Your task to perform on an android device: Open Youtube and go to "Your channel" Image 0: 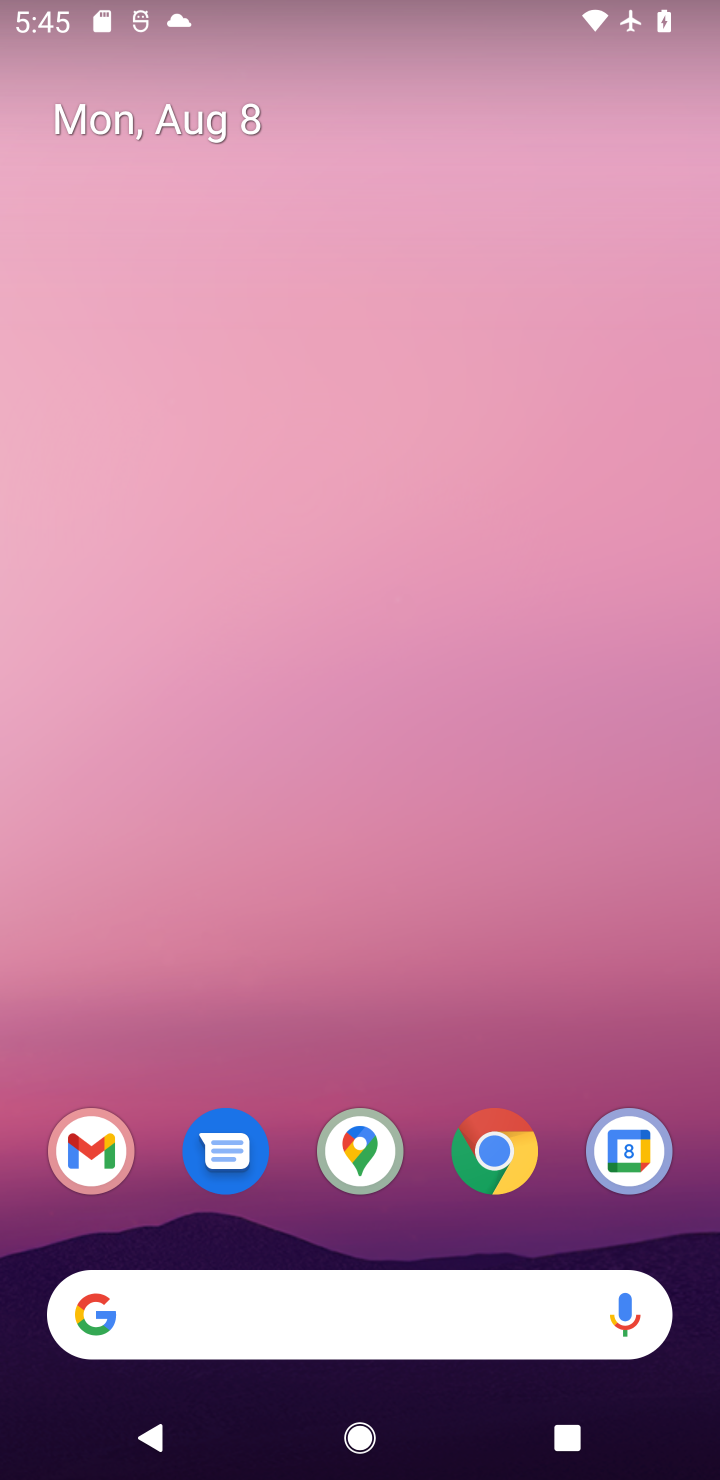
Step 0: drag from (373, 999) to (373, 159)
Your task to perform on an android device: Open Youtube and go to "Your channel" Image 1: 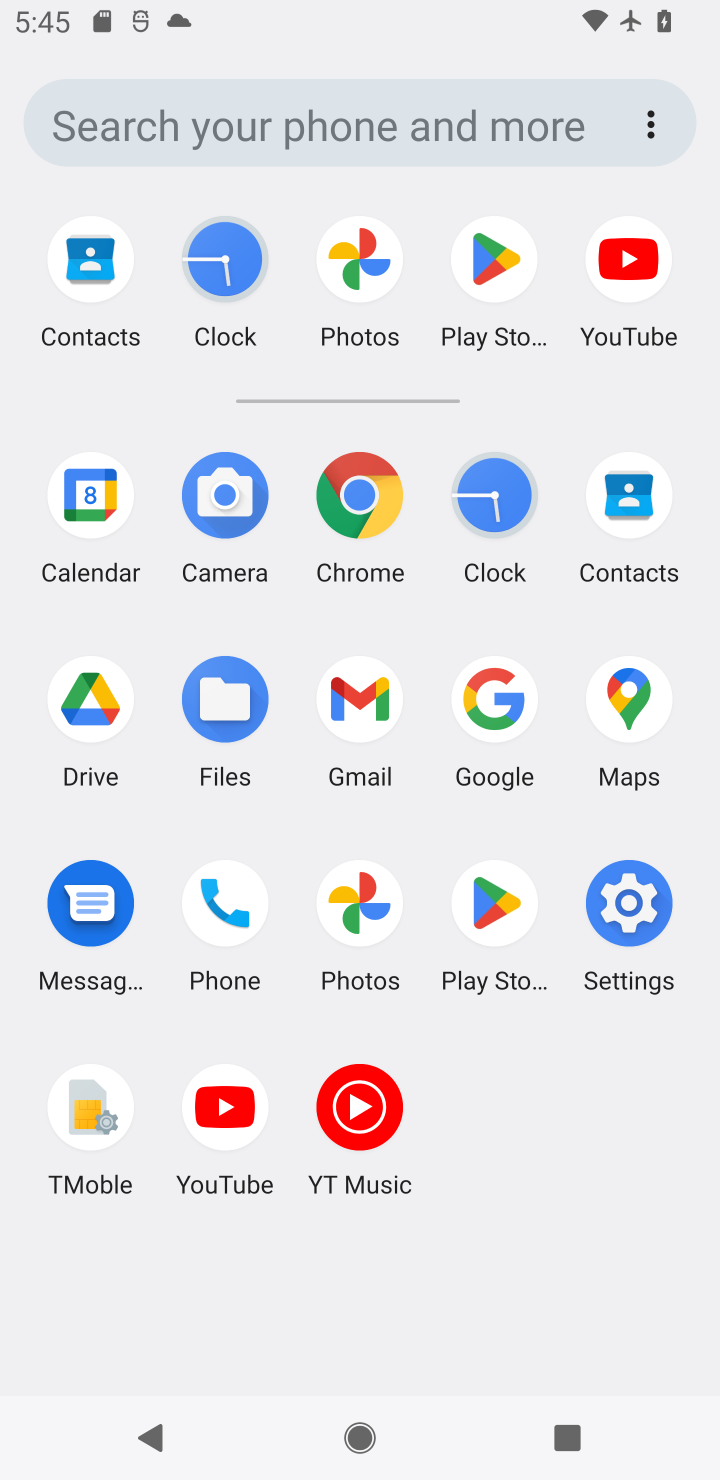
Step 1: click (215, 1145)
Your task to perform on an android device: Open Youtube and go to "Your channel" Image 2: 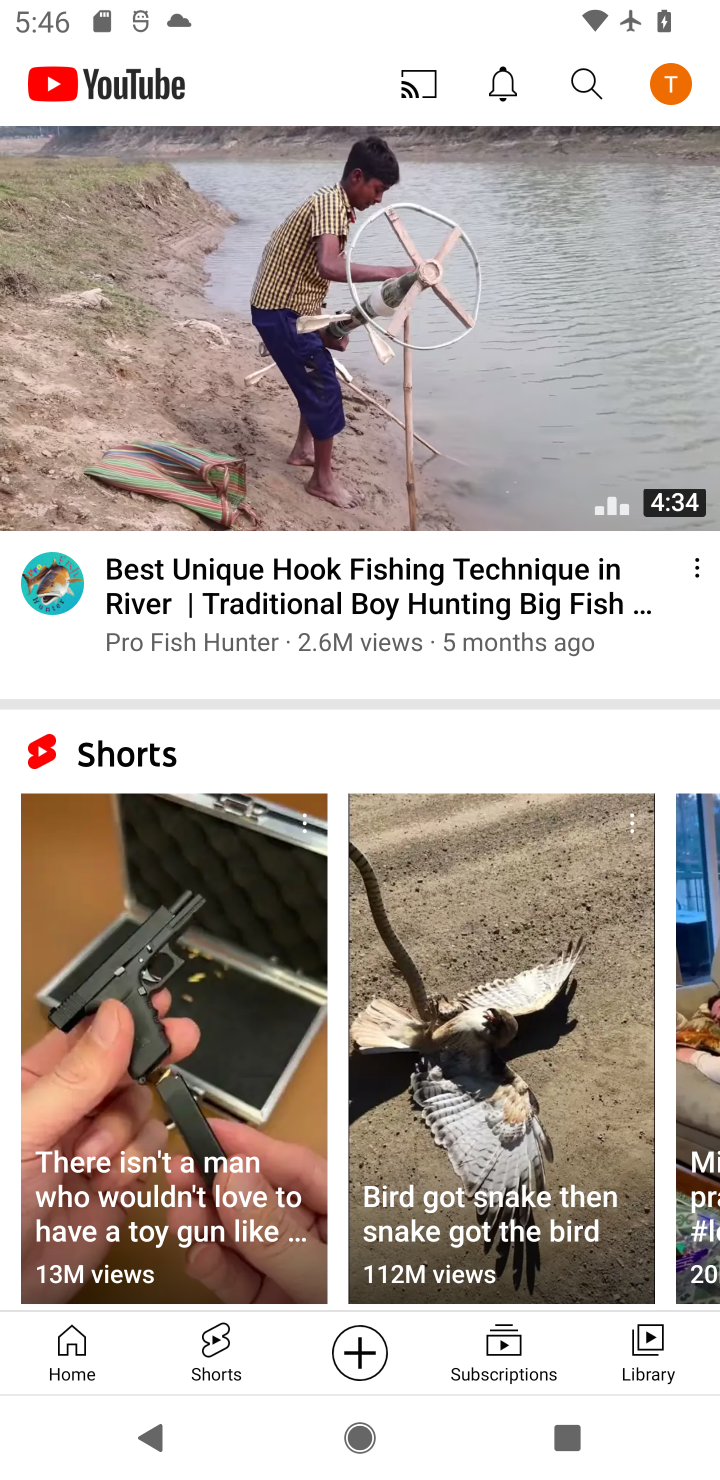
Step 2: click (679, 67)
Your task to perform on an android device: Open Youtube and go to "Your channel" Image 3: 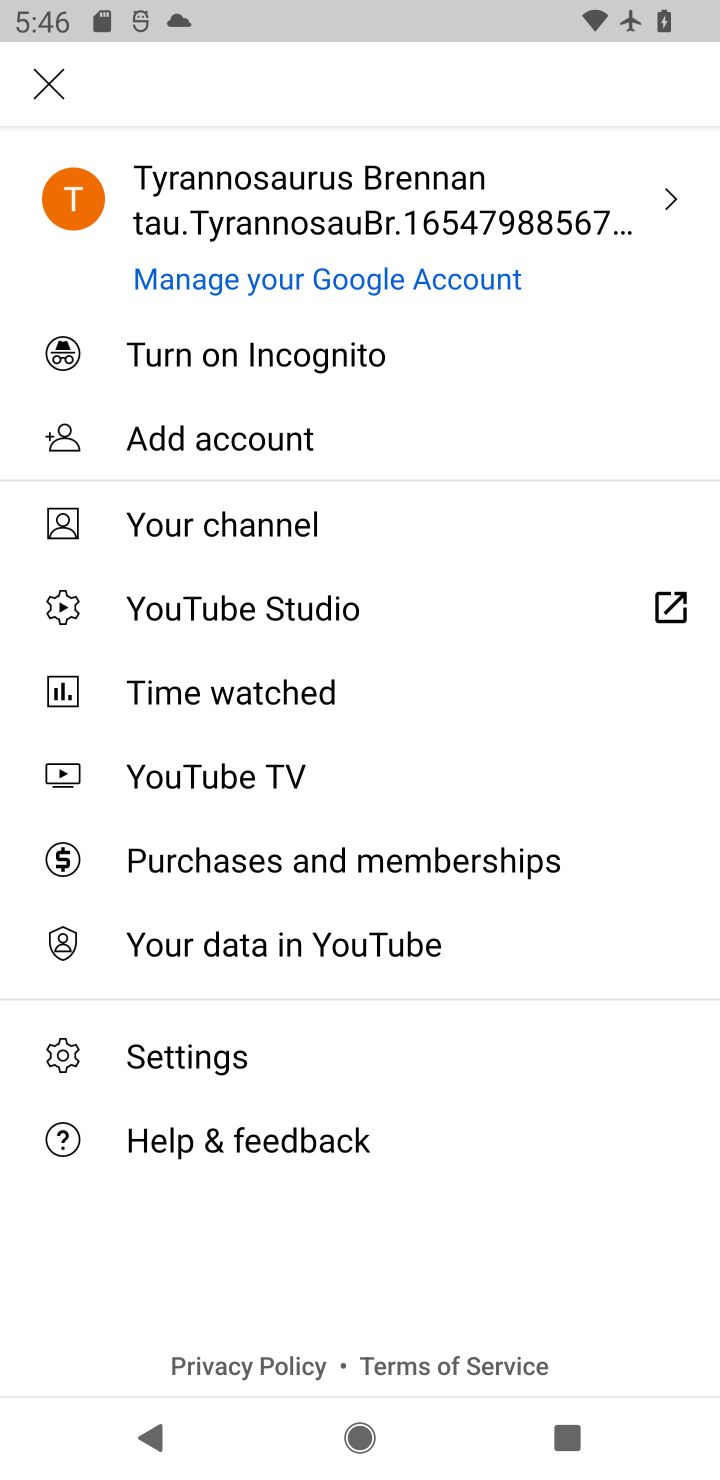
Step 3: click (217, 538)
Your task to perform on an android device: Open Youtube and go to "Your channel" Image 4: 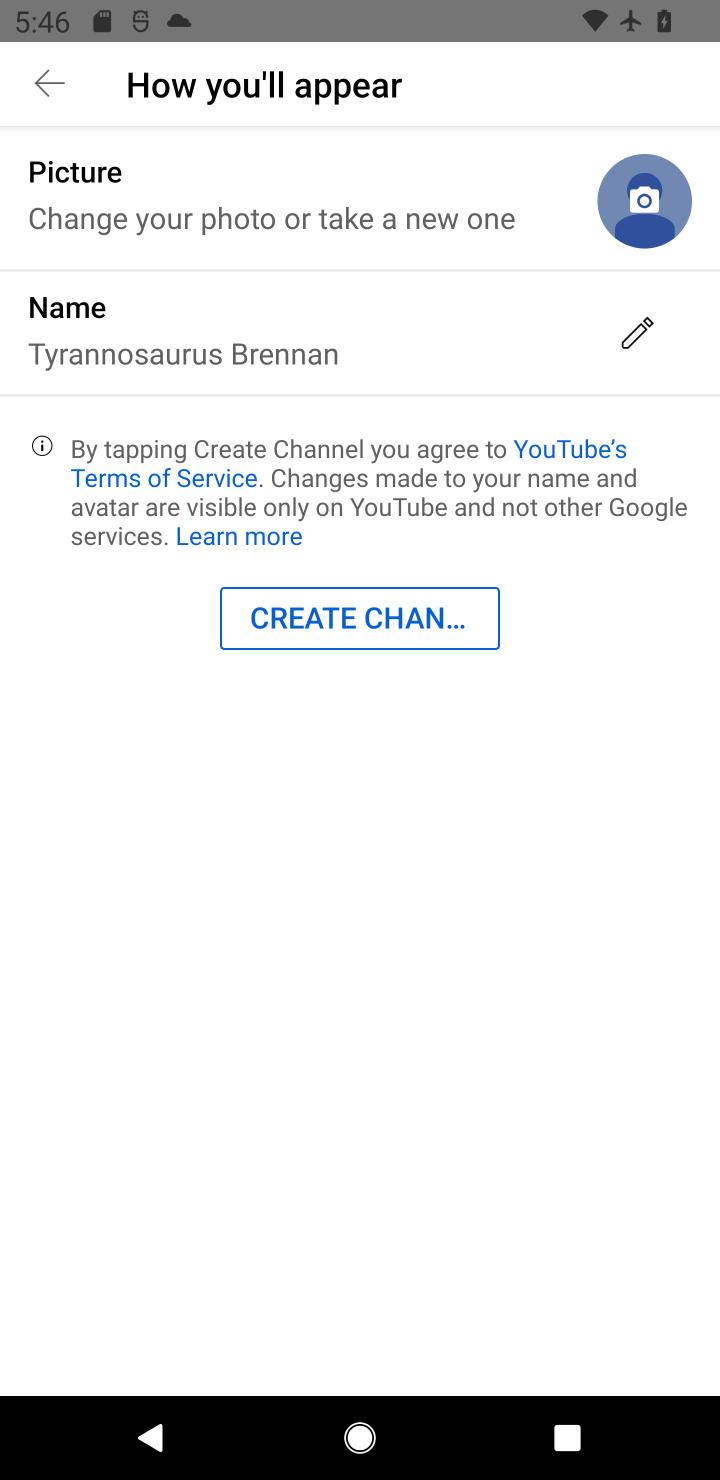
Step 4: task complete